Your task to perform on an android device: Is it going to rain tomorrow? Image 0: 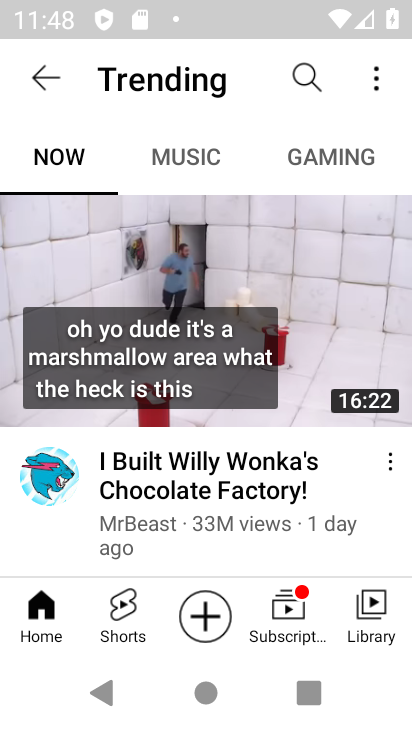
Step 0: press back button
Your task to perform on an android device: Is it going to rain tomorrow? Image 1: 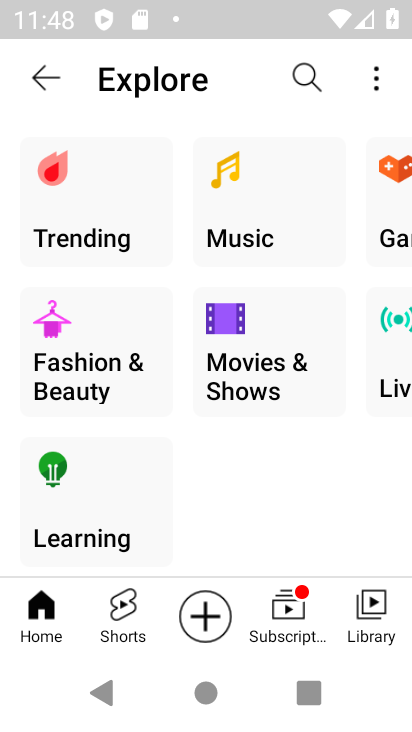
Step 1: press back button
Your task to perform on an android device: Is it going to rain tomorrow? Image 2: 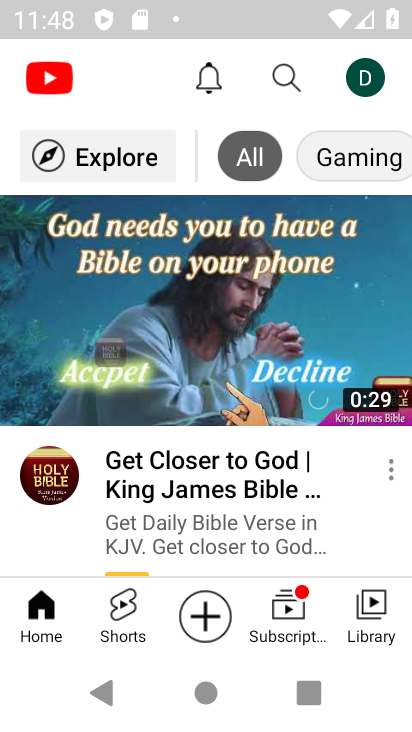
Step 2: press home button
Your task to perform on an android device: Is it going to rain tomorrow? Image 3: 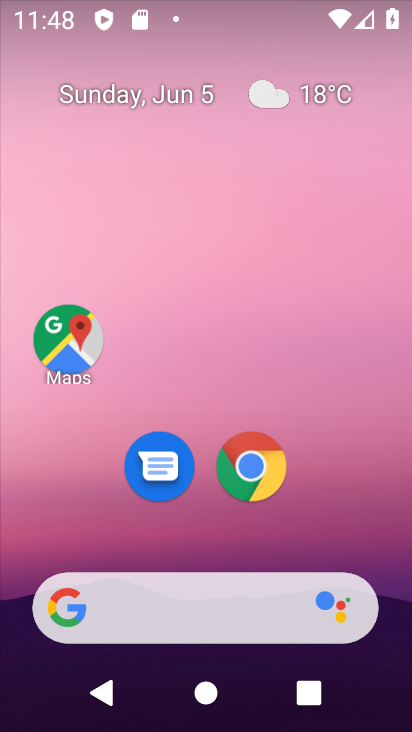
Step 3: drag from (364, 519) to (203, 47)
Your task to perform on an android device: Is it going to rain tomorrow? Image 4: 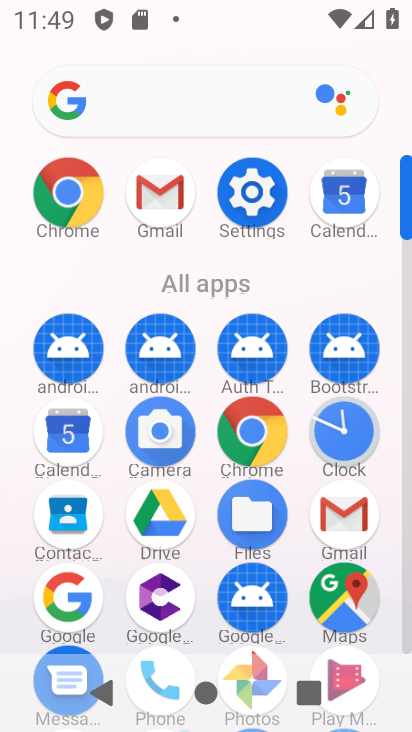
Step 4: drag from (11, 624) to (19, 314)
Your task to perform on an android device: Is it going to rain tomorrow? Image 5: 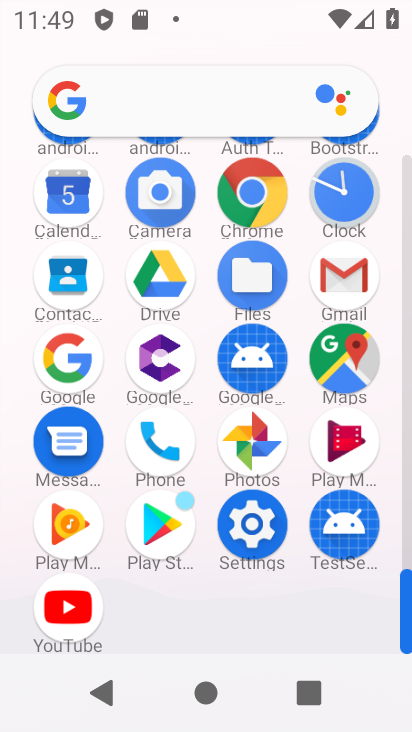
Step 5: drag from (19, 241) to (1, 467)
Your task to perform on an android device: Is it going to rain tomorrow? Image 6: 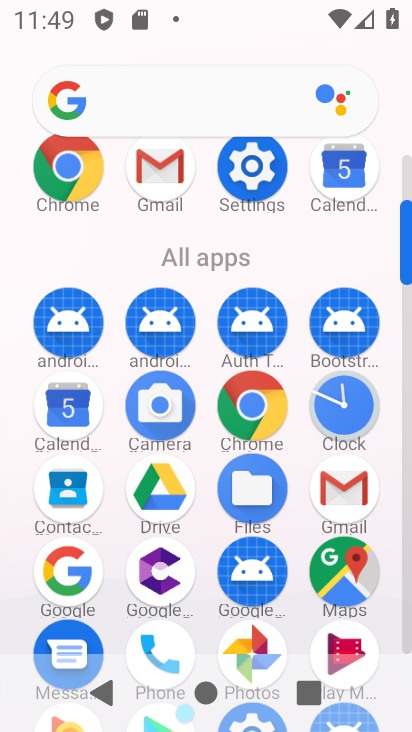
Step 6: click (244, 402)
Your task to perform on an android device: Is it going to rain tomorrow? Image 7: 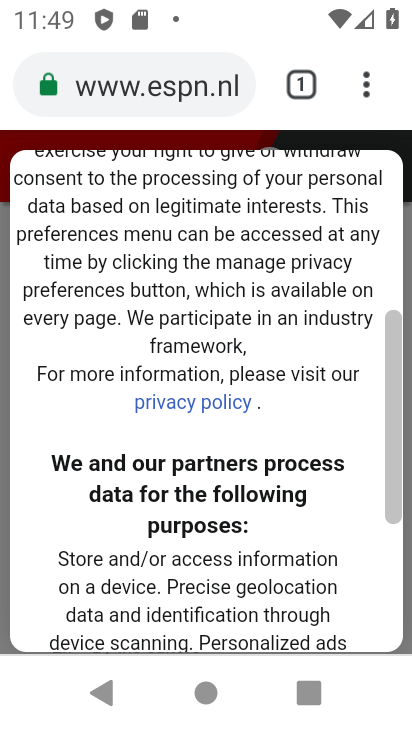
Step 7: click (184, 86)
Your task to perform on an android device: Is it going to rain tomorrow? Image 8: 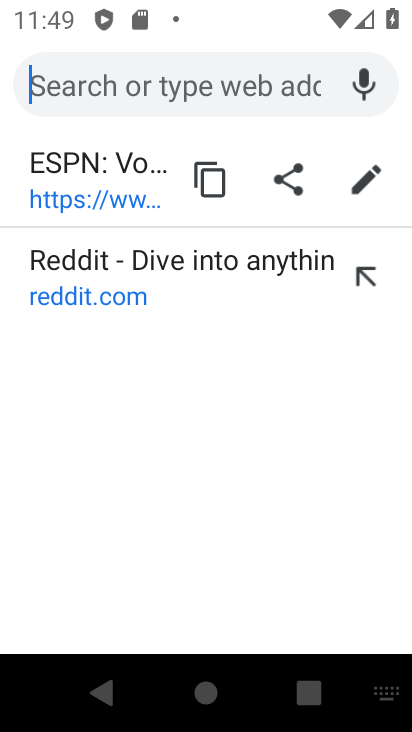
Step 8: type "Is it going to rain tomorrow"
Your task to perform on an android device: Is it going to rain tomorrow? Image 9: 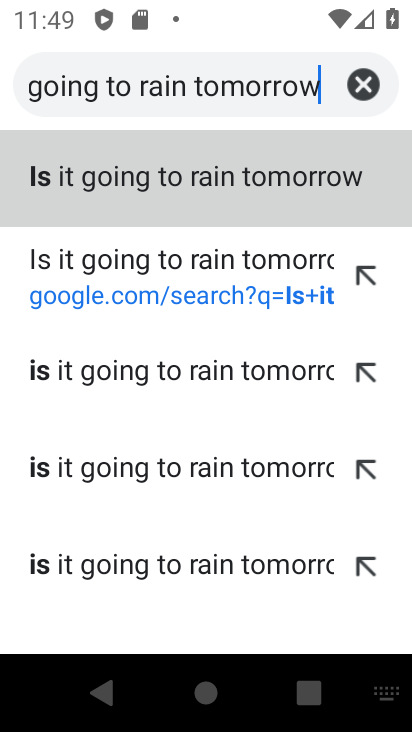
Step 9: type ""
Your task to perform on an android device: Is it going to rain tomorrow? Image 10: 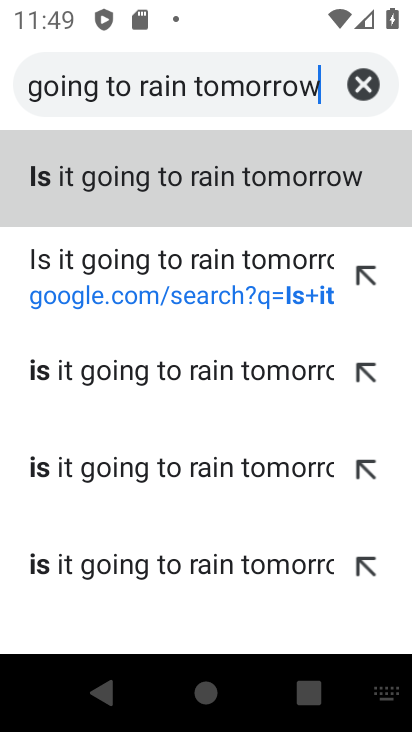
Step 10: click (210, 158)
Your task to perform on an android device: Is it going to rain tomorrow? Image 11: 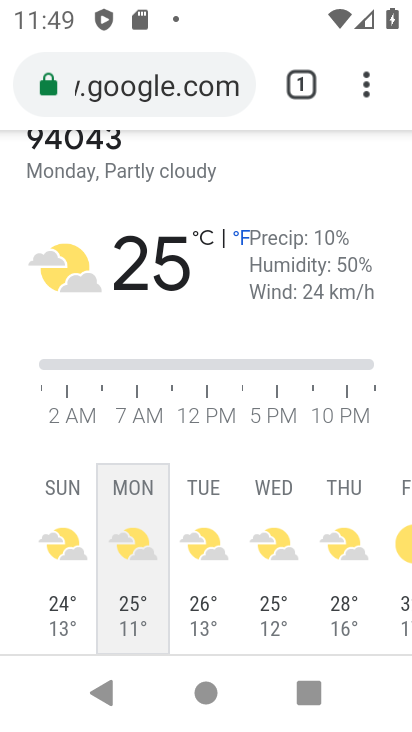
Step 11: task complete